Your task to perform on an android device: Go to ESPN.com Image 0: 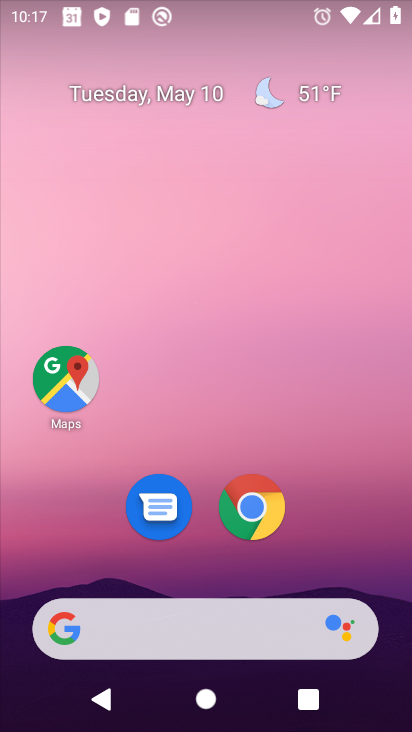
Step 0: click (183, 608)
Your task to perform on an android device: Go to ESPN.com Image 1: 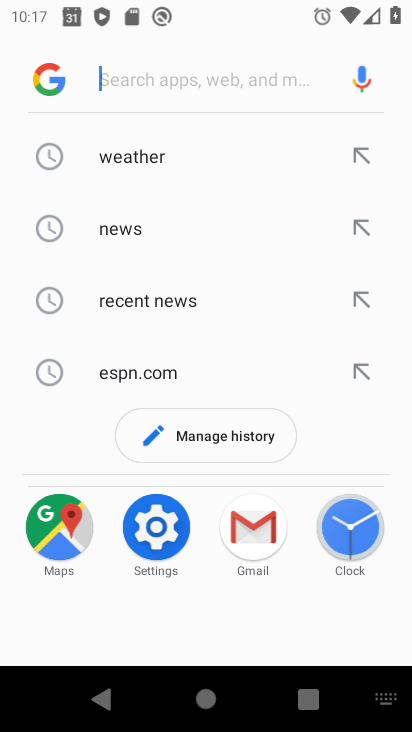
Step 1: click (202, 383)
Your task to perform on an android device: Go to ESPN.com Image 2: 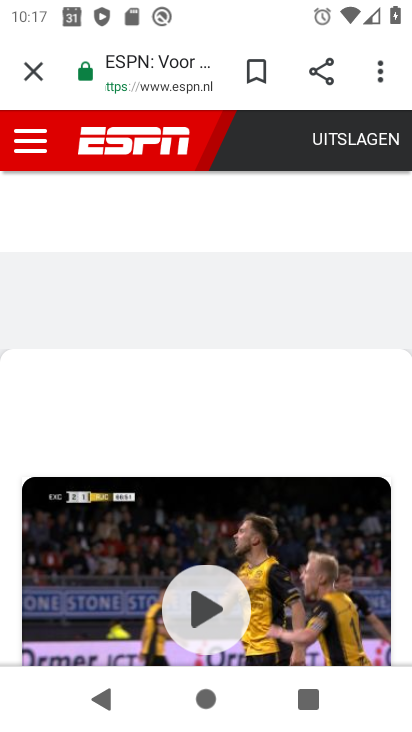
Step 2: task complete